Your task to perform on an android device: Show me popular games on the Play Store Image 0: 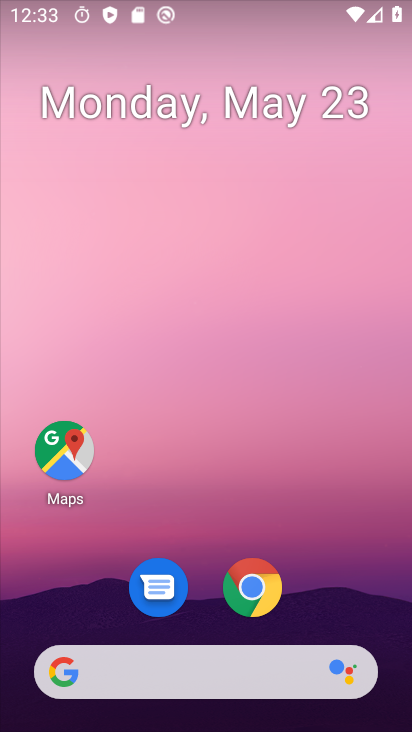
Step 0: drag from (210, 596) to (234, 123)
Your task to perform on an android device: Show me popular games on the Play Store Image 1: 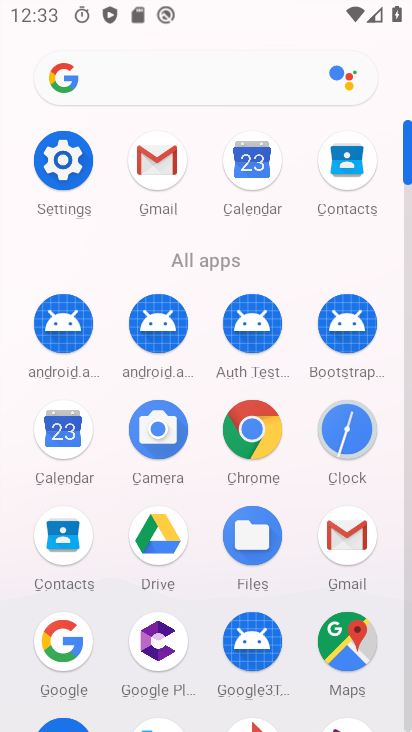
Step 1: drag from (208, 641) to (260, 184)
Your task to perform on an android device: Show me popular games on the Play Store Image 2: 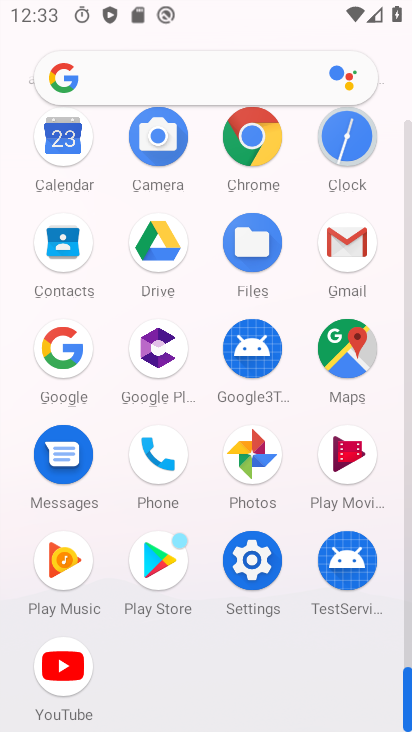
Step 2: click (160, 554)
Your task to perform on an android device: Show me popular games on the Play Store Image 3: 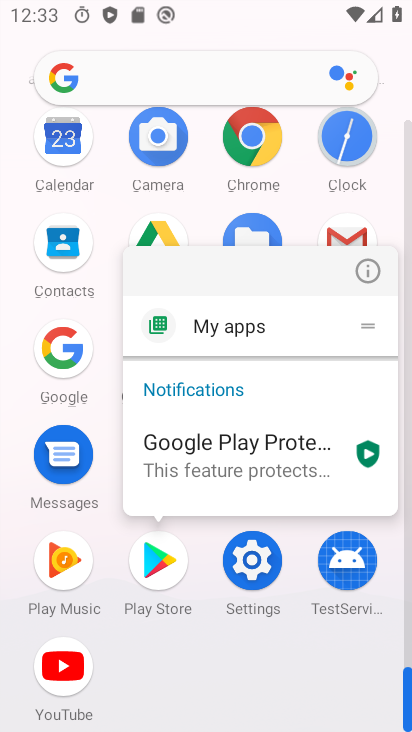
Step 3: click (158, 549)
Your task to perform on an android device: Show me popular games on the Play Store Image 4: 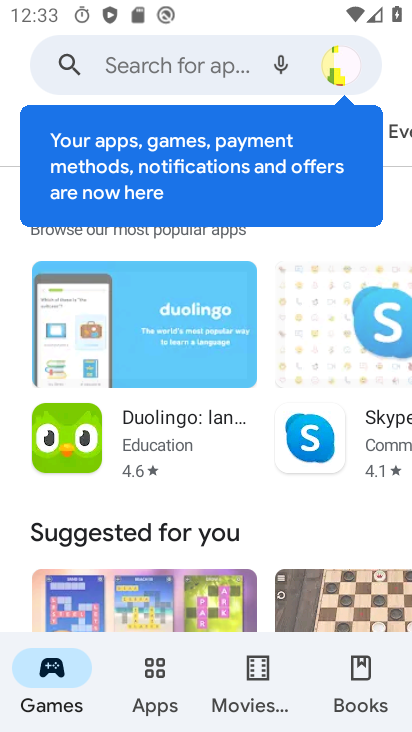
Step 4: click (68, 677)
Your task to perform on an android device: Show me popular games on the Play Store Image 5: 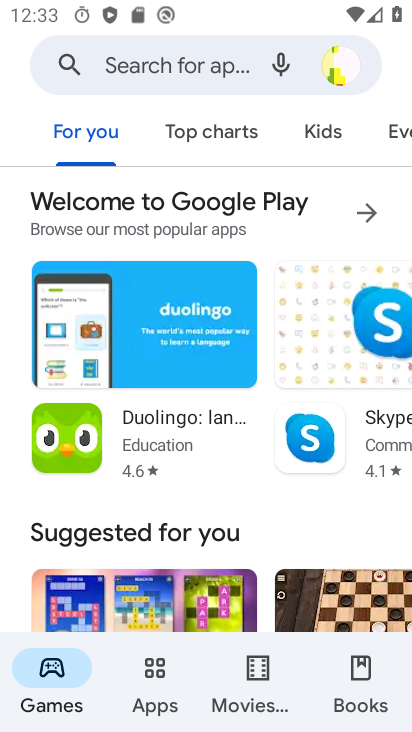
Step 5: drag from (247, 552) to (260, 94)
Your task to perform on an android device: Show me popular games on the Play Store Image 6: 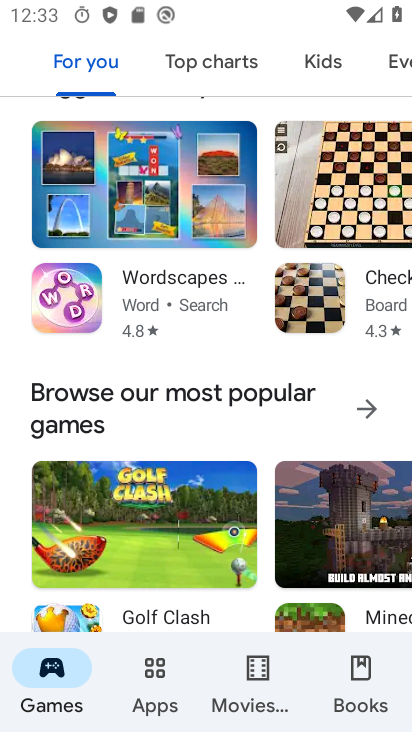
Step 6: click (345, 409)
Your task to perform on an android device: Show me popular games on the Play Store Image 7: 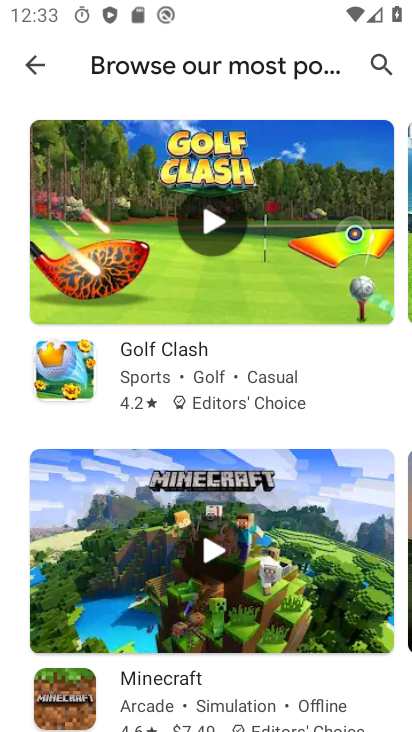
Step 7: task complete